Your task to perform on an android device: Show me productivity apps on the Play Store Image 0: 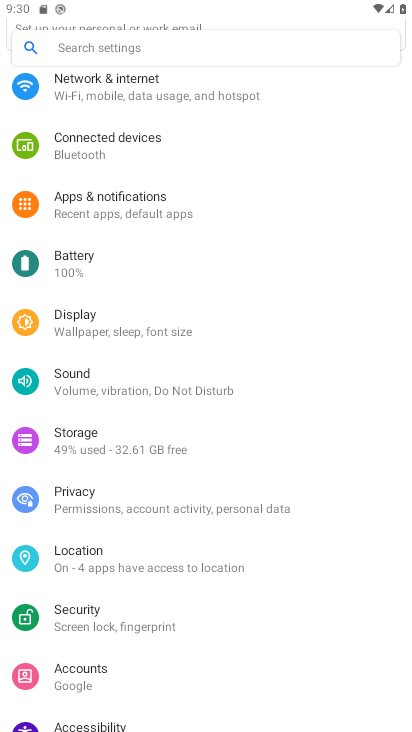
Step 0: press home button
Your task to perform on an android device: Show me productivity apps on the Play Store Image 1: 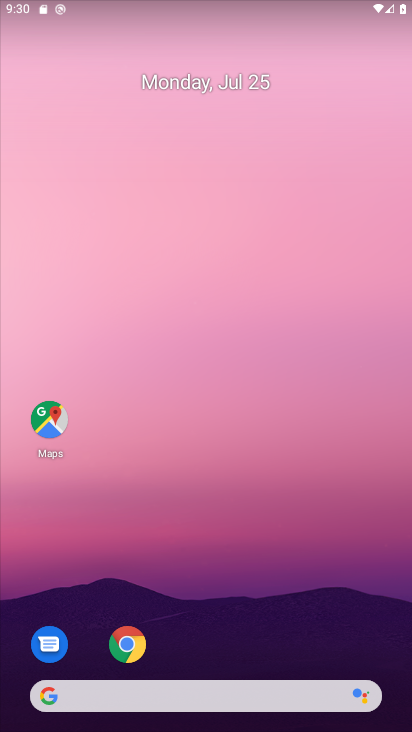
Step 1: drag from (393, 700) to (323, 57)
Your task to perform on an android device: Show me productivity apps on the Play Store Image 2: 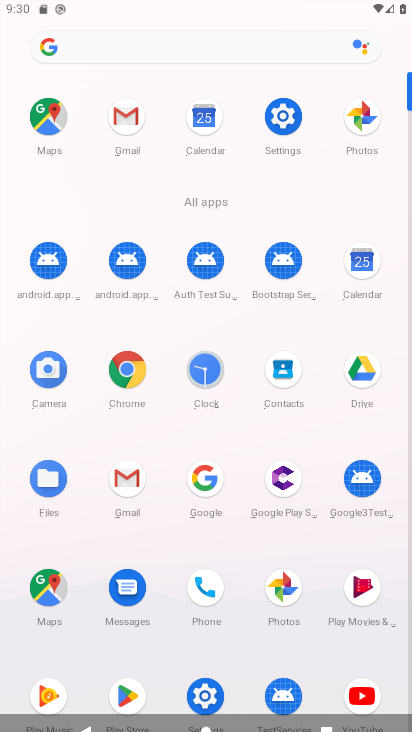
Step 2: click (128, 686)
Your task to perform on an android device: Show me productivity apps on the Play Store Image 3: 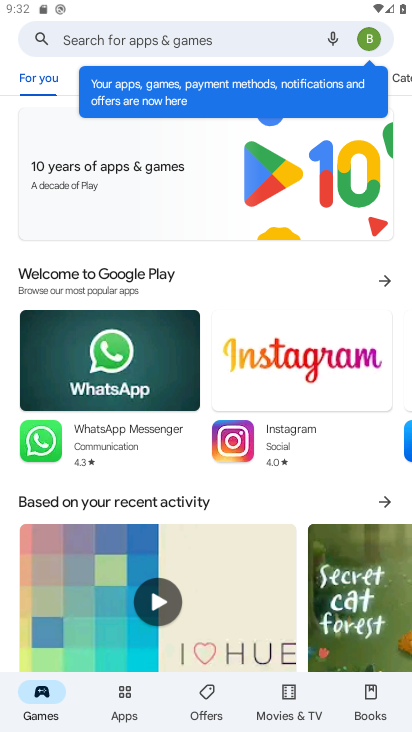
Step 3: click (283, 40)
Your task to perform on an android device: Show me productivity apps on the Play Store Image 4: 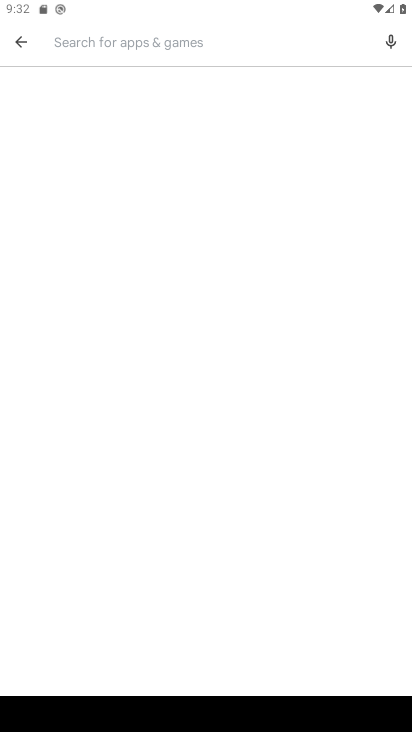
Step 4: type " productivity apps "
Your task to perform on an android device: Show me productivity apps on the Play Store Image 5: 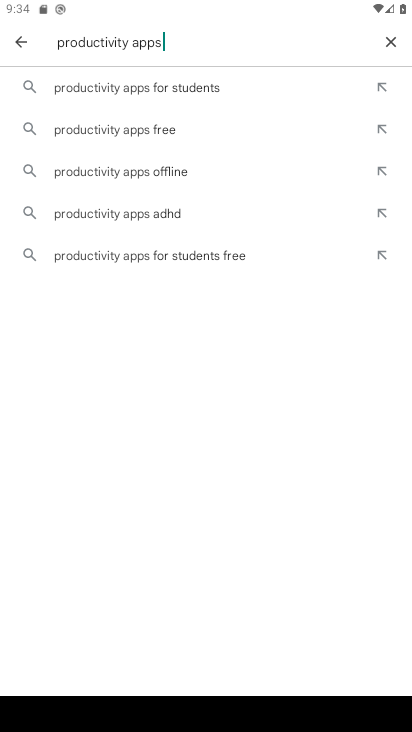
Step 5: click (121, 91)
Your task to perform on an android device: Show me productivity apps on the Play Store Image 6: 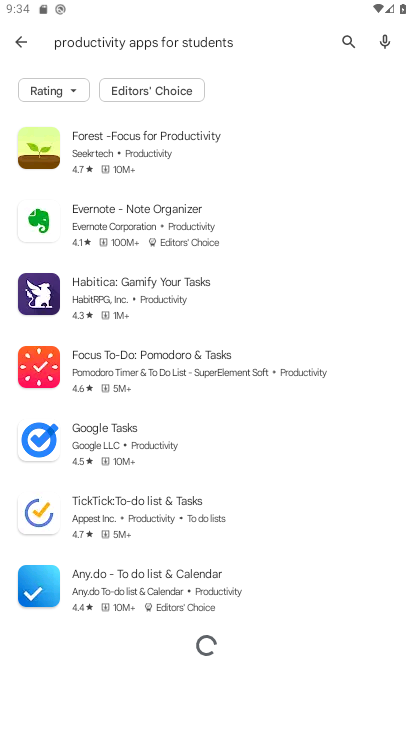
Step 6: task complete